Your task to perform on an android device: See recent photos Image 0: 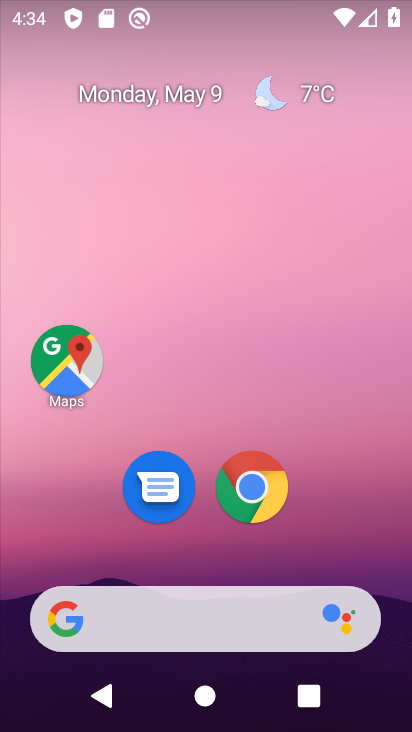
Step 0: drag from (203, 531) to (228, 71)
Your task to perform on an android device: See recent photos Image 1: 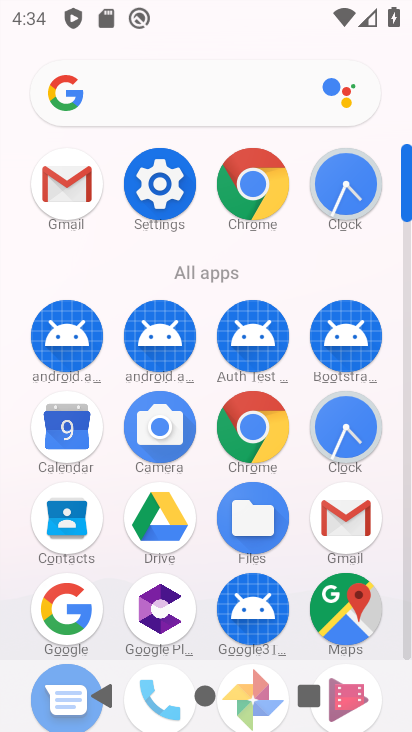
Step 1: drag from (205, 595) to (241, 288)
Your task to perform on an android device: See recent photos Image 2: 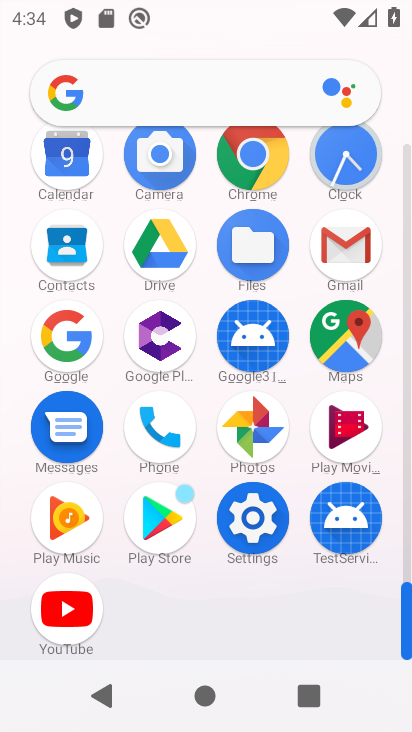
Step 2: click (245, 425)
Your task to perform on an android device: See recent photos Image 3: 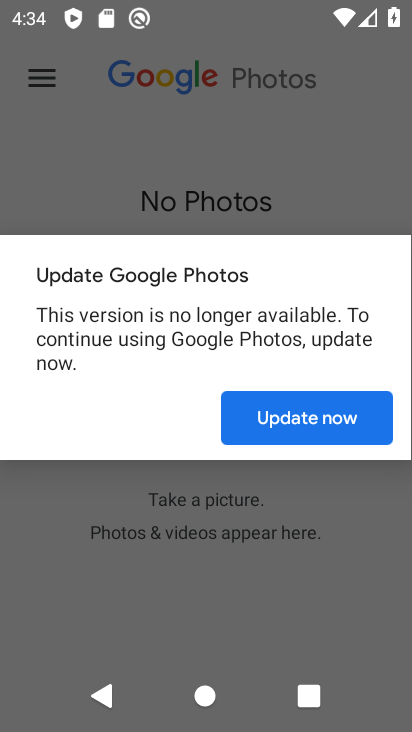
Step 3: click (245, 425)
Your task to perform on an android device: See recent photos Image 4: 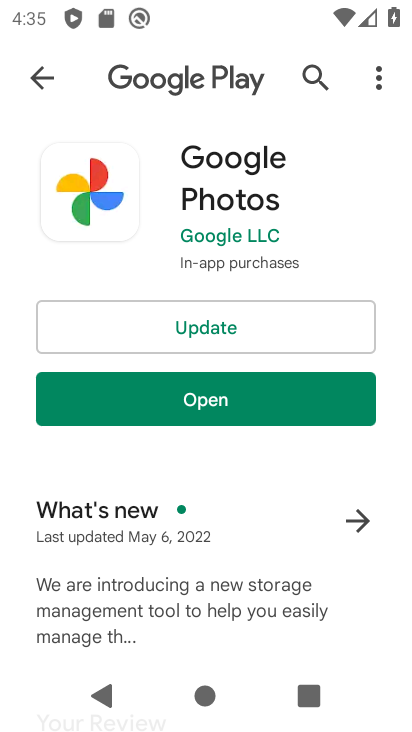
Step 4: click (271, 330)
Your task to perform on an android device: See recent photos Image 5: 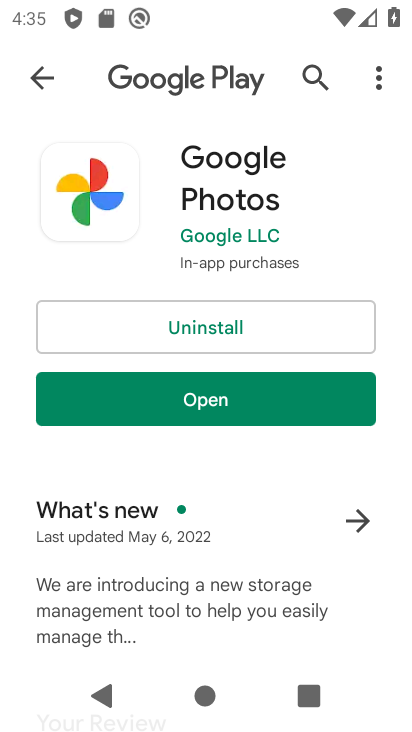
Step 5: click (270, 405)
Your task to perform on an android device: See recent photos Image 6: 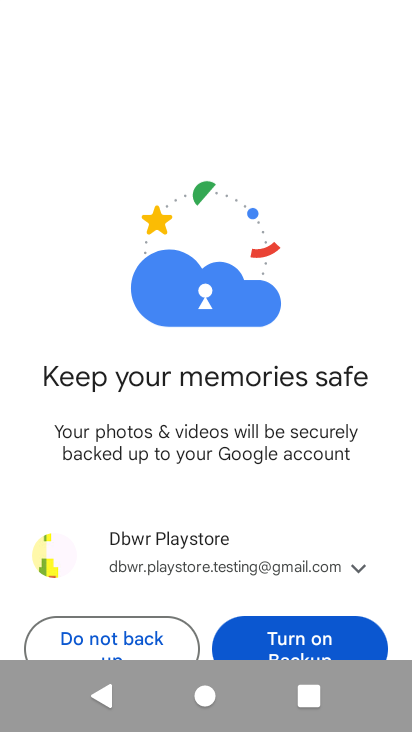
Step 6: task complete